Your task to perform on an android device: Open the Play Movies app and select the watchlist tab. Image 0: 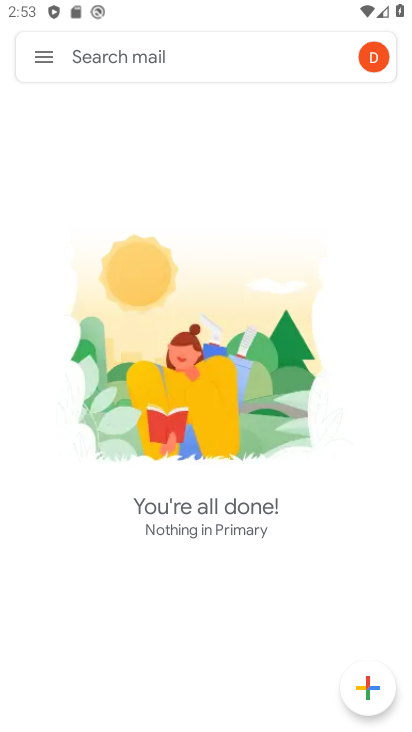
Step 0: press home button
Your task to perform on an android device: Open the Play Movies app and select the watchlist tab. Image 1: 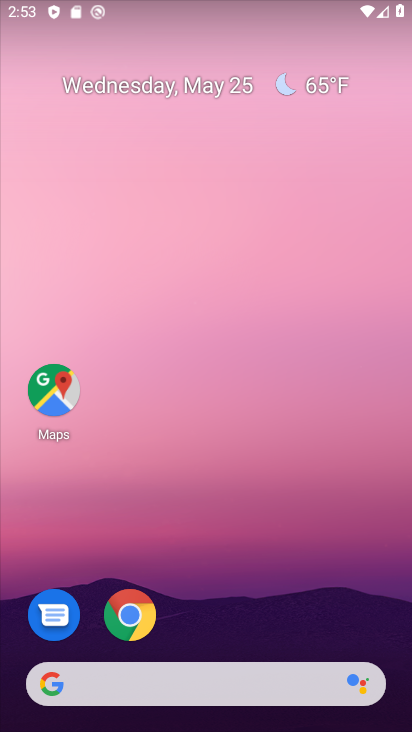
Step 1: drag from (405, 577) to (405, 259)
Your task to perform on an android device: Open the Play Movies app and select the watchlist tab. Image 2: 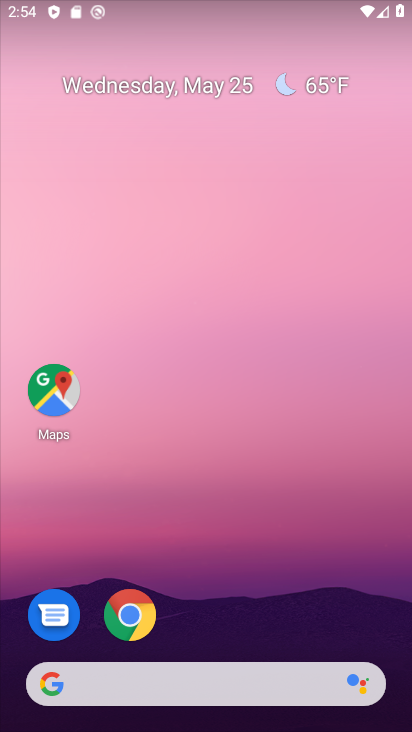
Step 2: drag from (245, 615) to (256, 11)
Your task to perform on an android device: Open the Play Movies app and select the watchlist tab. Image 3: 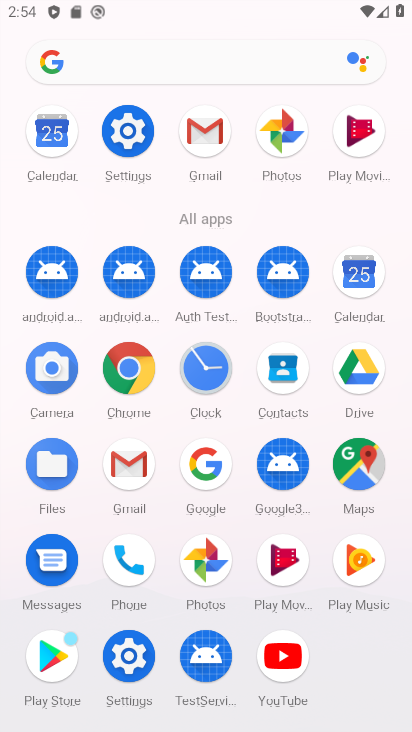
Step 3: click (290, 543)
Your task to perform on an android device: Open the Play Movies app and select the watchlist tab. Image 4: 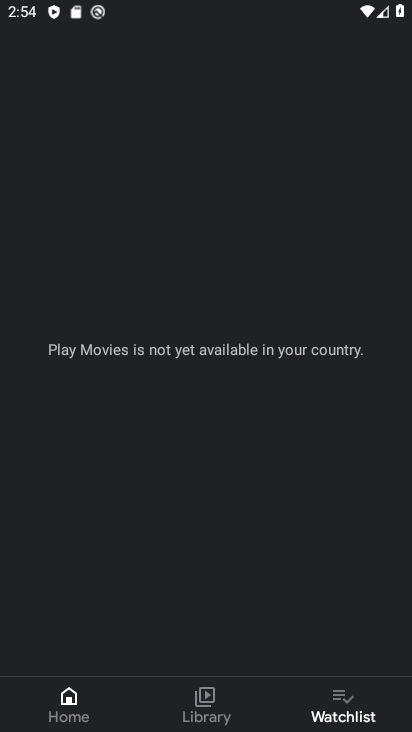
Step 4: click (352, 711)
Your task to perform on an android device: Open the Play Movies app and select the watchlist tab. Image 5: 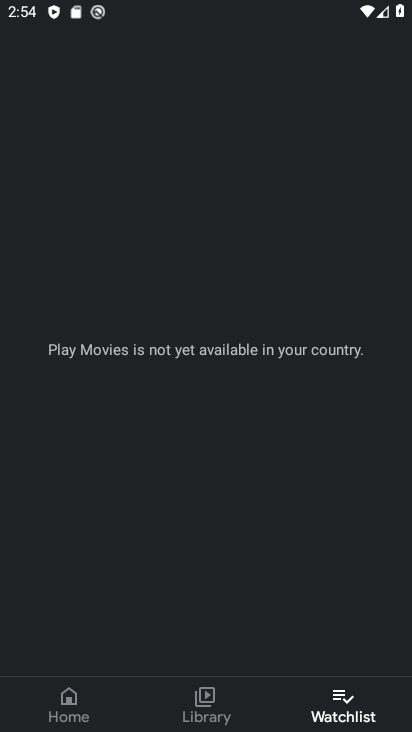
Step 5: task complete